Your task to perform on an android device: turn off airplane mode Image 0: 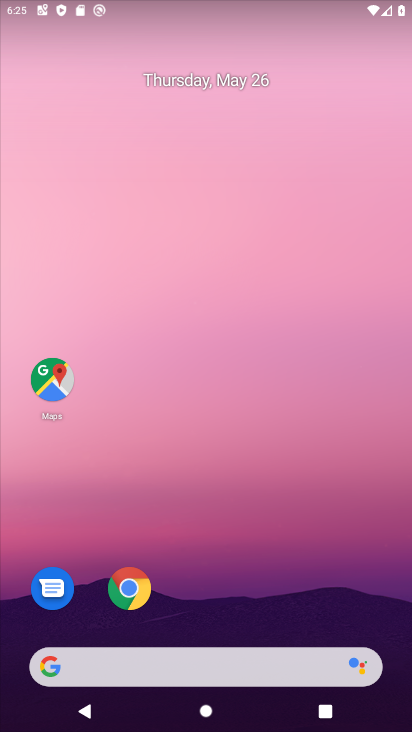
Step 0: drag from (353, 591) to (262, 187)
Your task to perform on an android device: turn off airplane mode Image 1: 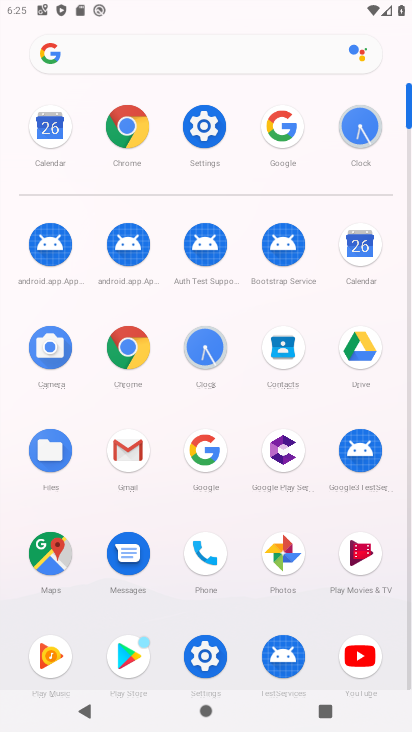
Step 1: task complete